Your task to perform on an android device: Search for seafood restaurants on Google Maps Image 0: 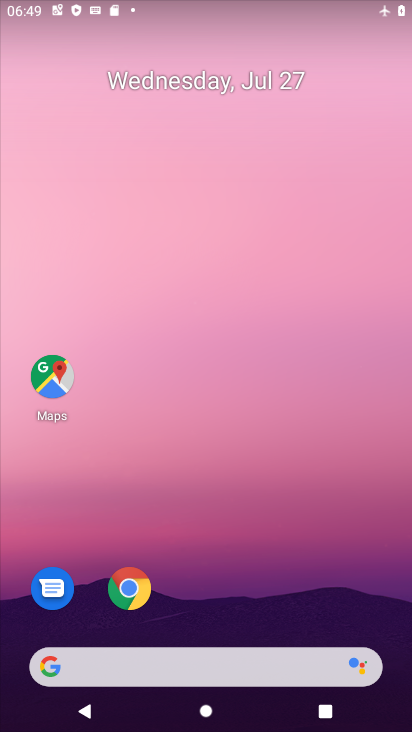
Step 0: drag from (218, 665) to (267, 16)
Your task to perform on an android device: Search for seafood restaurants on Google Maps Image 1: 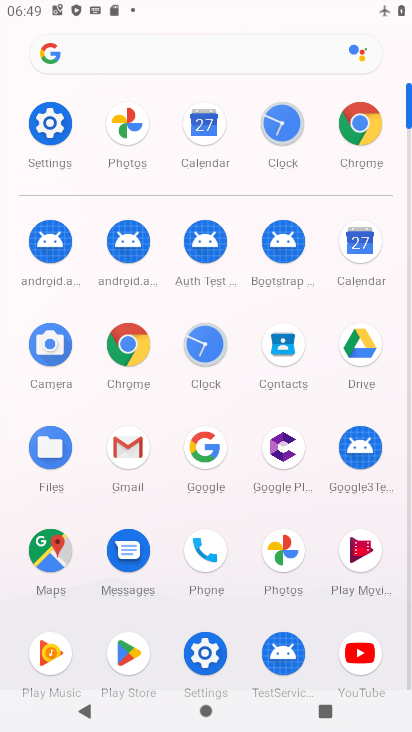
Step 1: click (53, 545)
Your task to perform on an android device: Search for seafood restaurants on Google Maps Image 2: 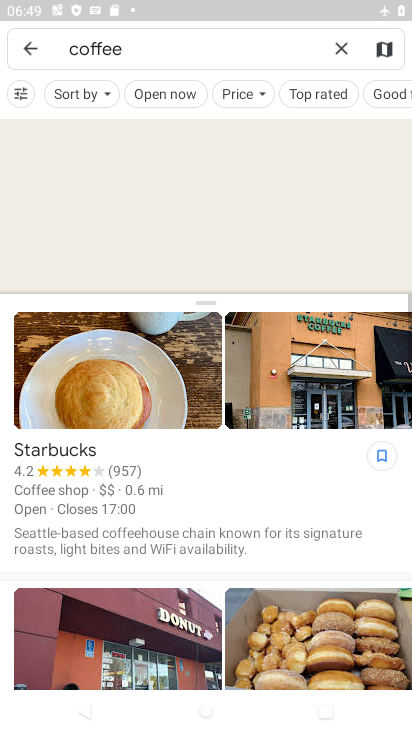
Step 2: click (341, 47)
Your task to perform on an android device: Search for seafood restaurants on Google Maps Image 3: 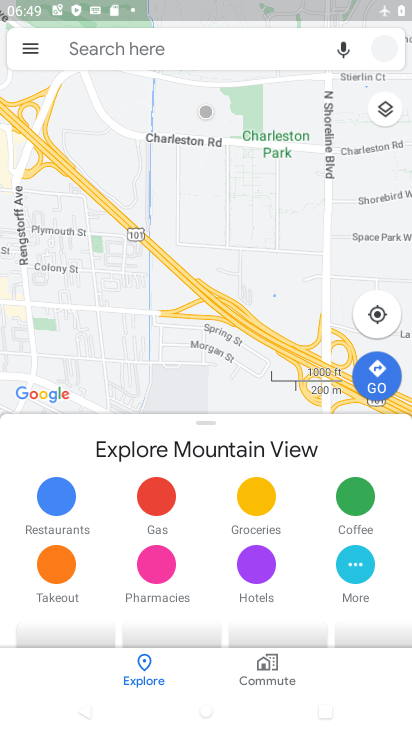
Step 3: click (268, 45)
Your task to perform on an android device: Search for seafood restaurants on Google Maps Image 4: 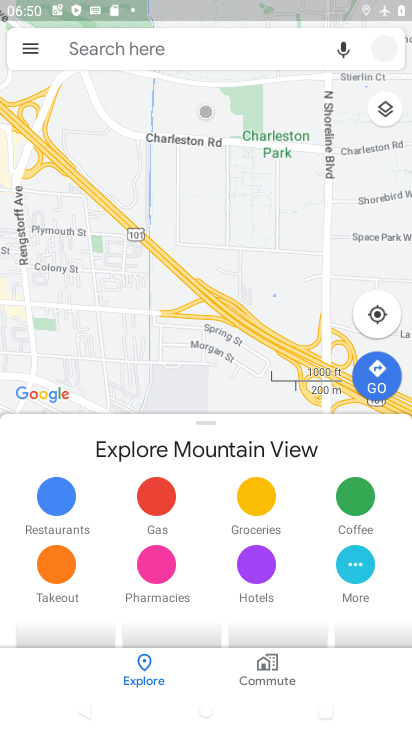
Step 4: click (268, 45)
Your task to perform on an android device: Search for seafood restaurants on Google Maps Image 5: 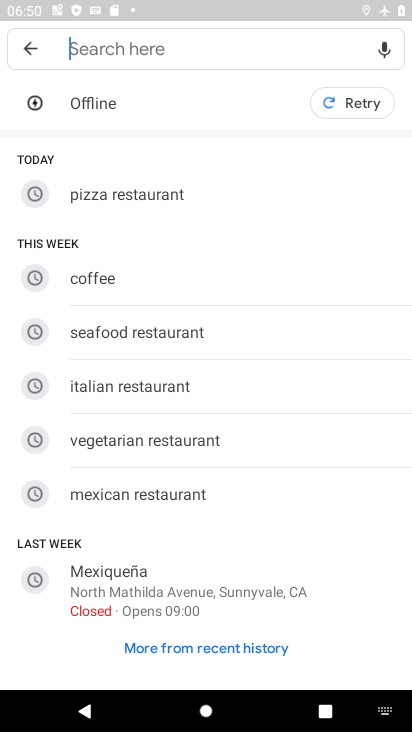
Step 5: type "seafood restaurant"
Your task to perform on an android device: Search for seafood restaurants on Google Maps Image 6: 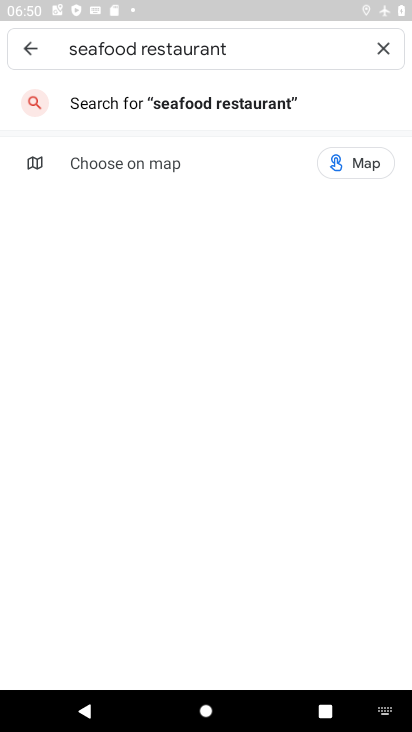
Step 6: task complete